Your task to perform on an android device: What's the weather going to be this weekend? Image 0: 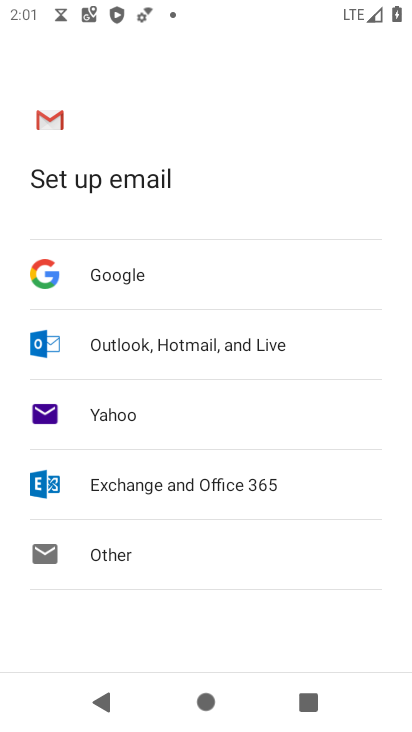
Step 0: press home button
Your task to perform on an android device: What's the weather going to be this weekend? Image 1: 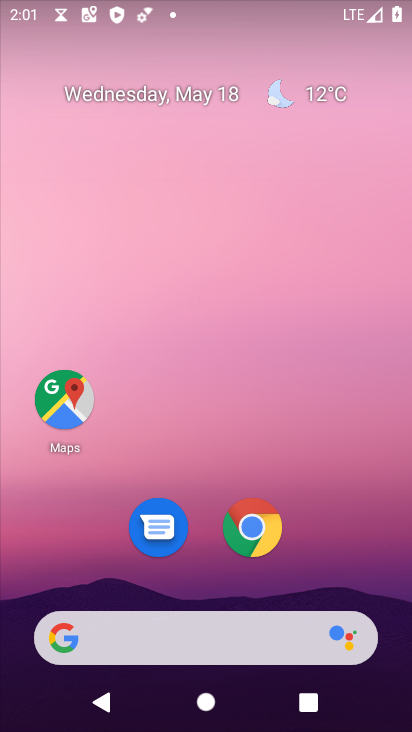
Step 1: click (324, 97)
Your task to perform on an android device: What's the weather going to be this weekend? Image 2: 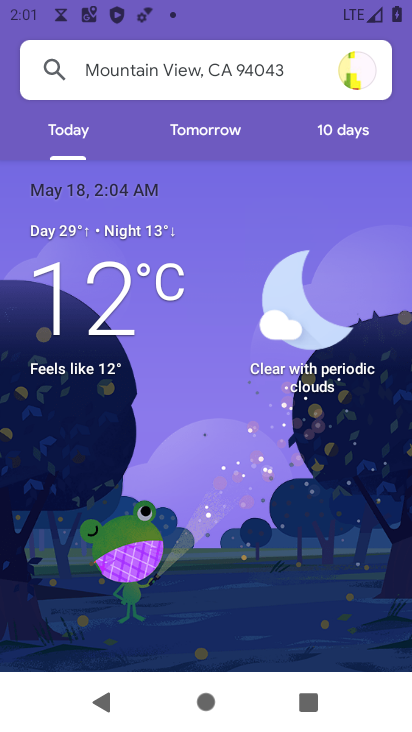
Step 2: click (313, 131)
Your task to perform on an android device: What's the weather going to be this weekend? Image 3: 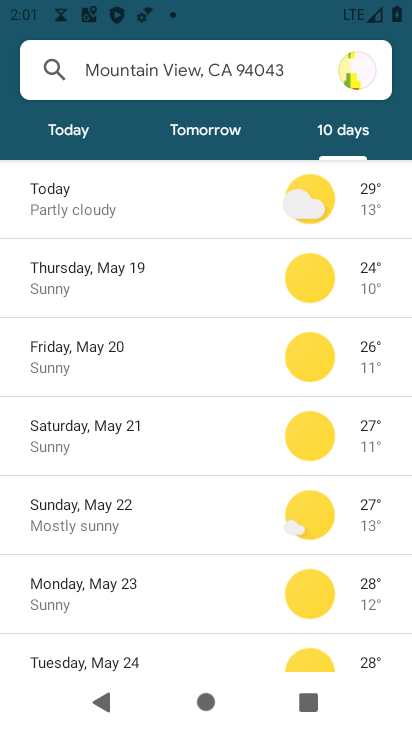
Step 3: task complete